Your task to perform on an android device: Play the last video I watched on Youtube Image 0: 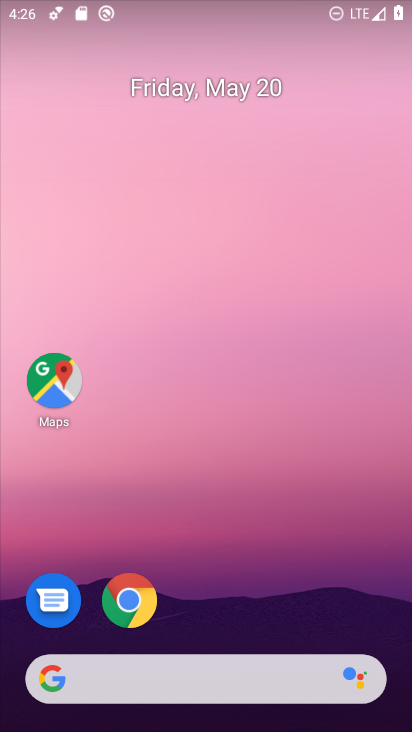
Step 0: drag from (238, 592) to (330, 17)
Your task to perform on an android device: Play the last video I watched on Youtube Image 1: 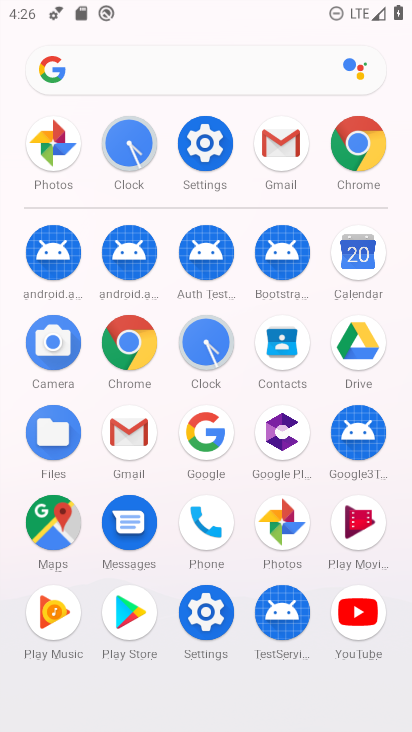
Step 1: click (371, 607)
Your task to perform on an android device: Play the last video I watched on Youtube Image 2: 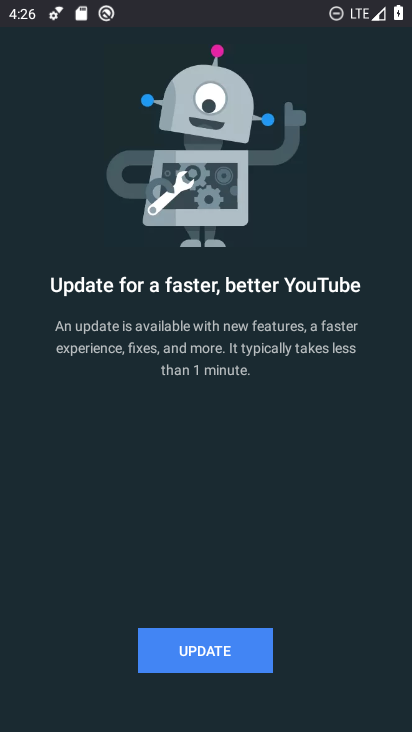
Step 2: click (180, 645)
Your task to perform on an android device: Play the last video I watched on Youtube Image 3: 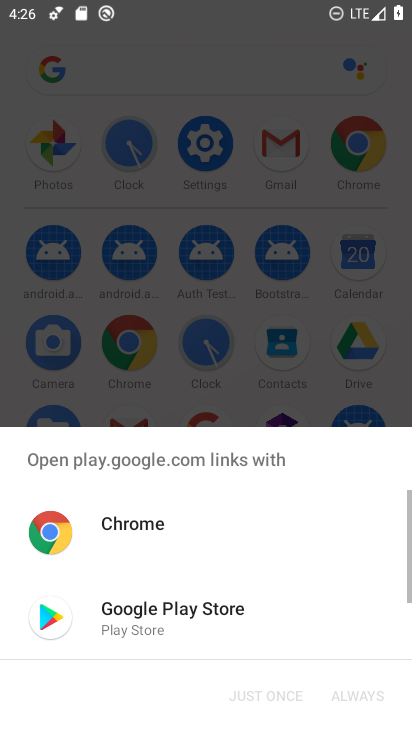
Step 3: click (256, 609)
Your task to perform on an android device: Play the last video I watched on Youtube Image 4: 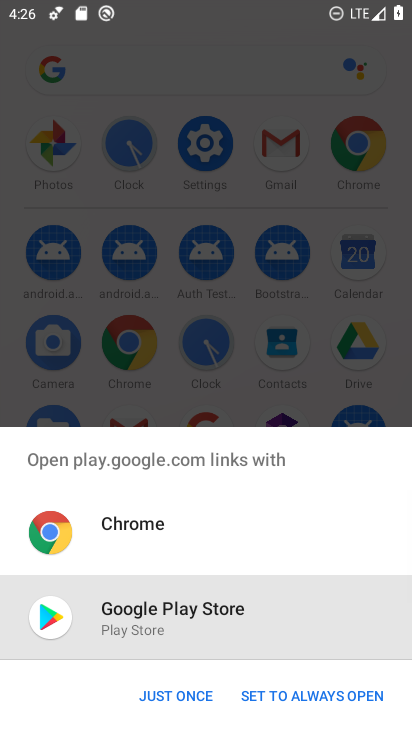
Step 4: click (164, 707)
Your task to perform on an android device: Play the last video I watched on Youtube Image 5: 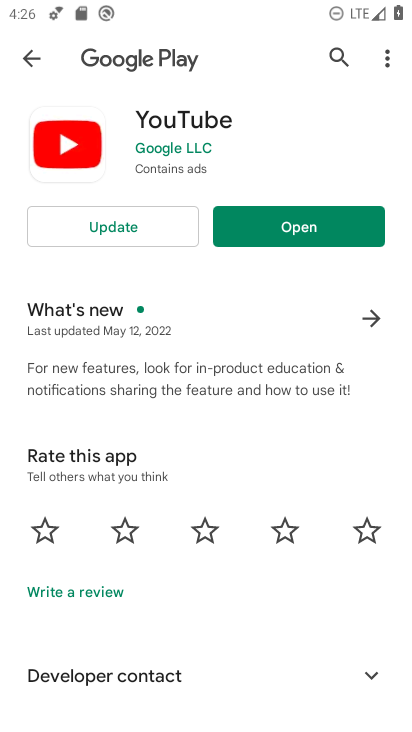
Step 5: click (141, 226)
Your task to perform on an android device: Play the last video I watched on Youtube Image 6: 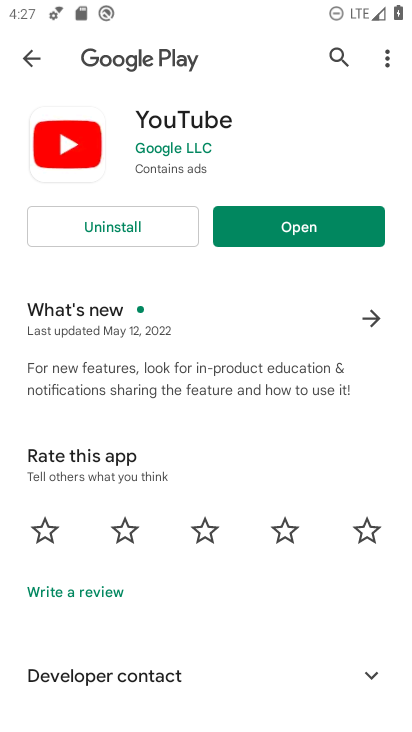
Step 6: click (303, 218)
Your task to perform on an android device: Play the last video I watched on Youtube Image 7: 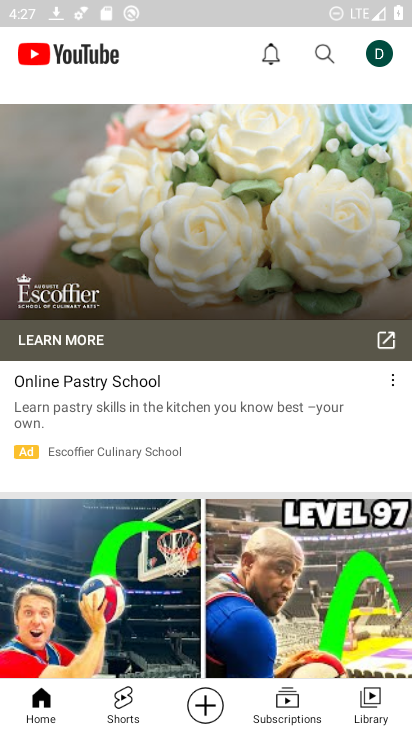
Step 7: drag from (161, 238) to (179, 519)
Your task to perform on an android device: Play the last video I watched on Youtube Image 8: 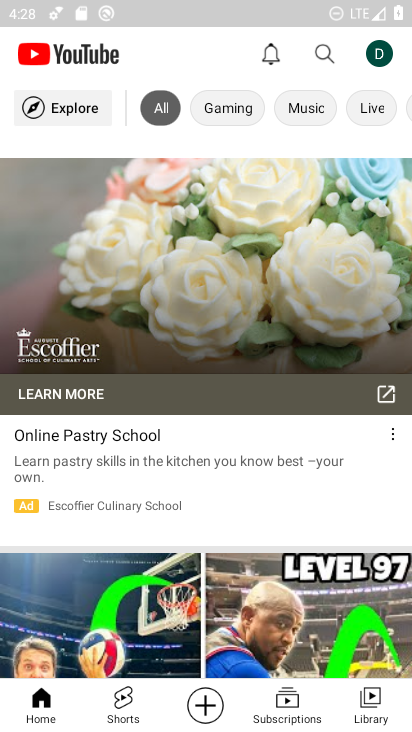
Step 8: click (55, 116)
Your task to perform on an android device: Play the last video I watched on Youtube Image 9: 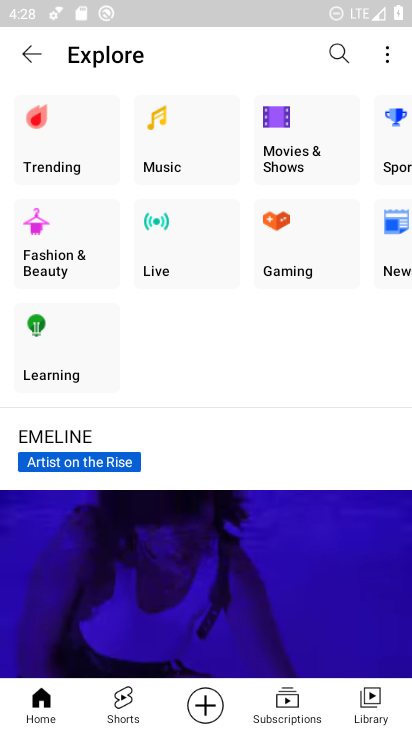
Step 9: click (366, 707)
Your task to perform on an android device: Play the last video I watched on Youtube Image 10: 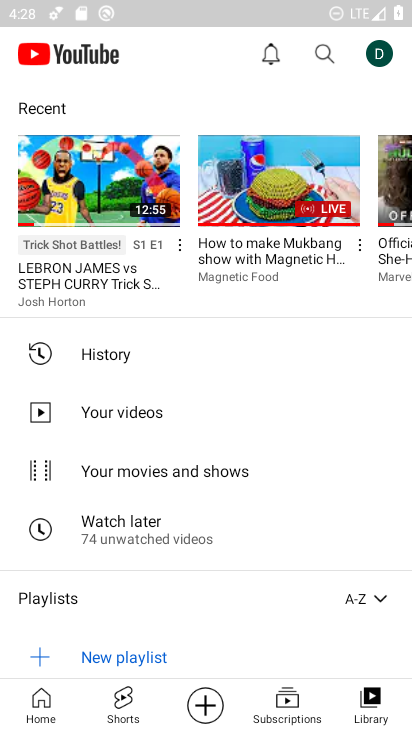
Step 10: click (91, 190)
Your task to perform on an android device: Play the last video I watched on Youtube Image 11: 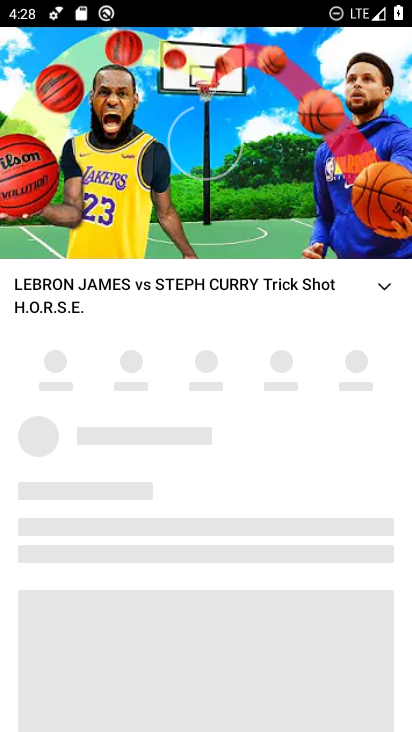
Step 11: task complete